Your task to perform on an android device: Go to eBay Image 0: 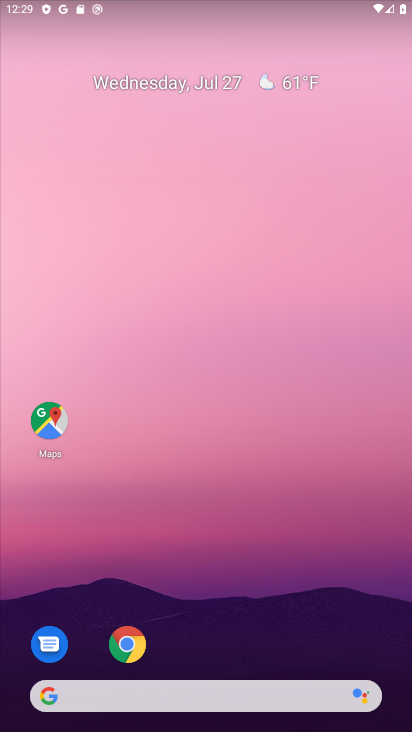
Step 0: drag from (205, 641) to (271, 142)
Your task to perform on an android device: Go to eBay Image 1: 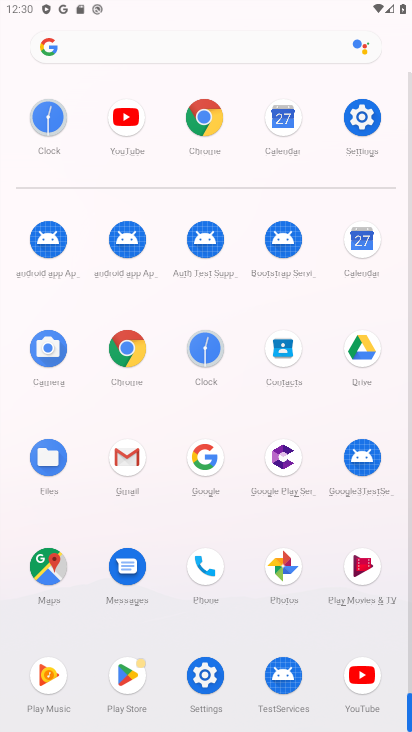
Step 1: drag from (231, 651) to (272, 278)
Your task to perform on an android device: Go to eBay Image 2: 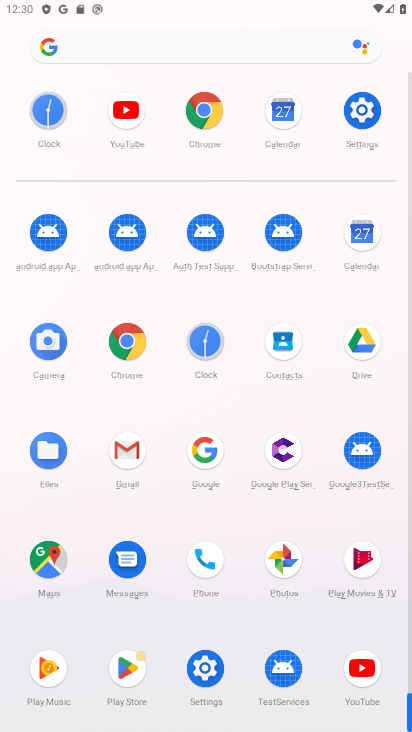
Step 2: click (212, 48)
Your task to perform on an android device: Go to eBay Image 3: 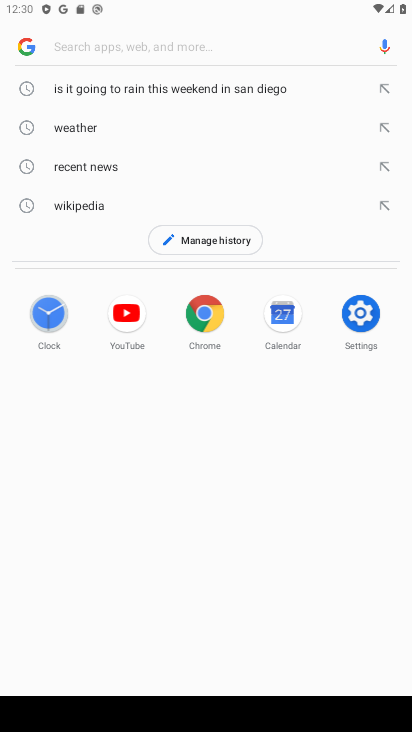
Step 3: type "ebay"
Your task to perform on an android device: Go to eBay Image 4: 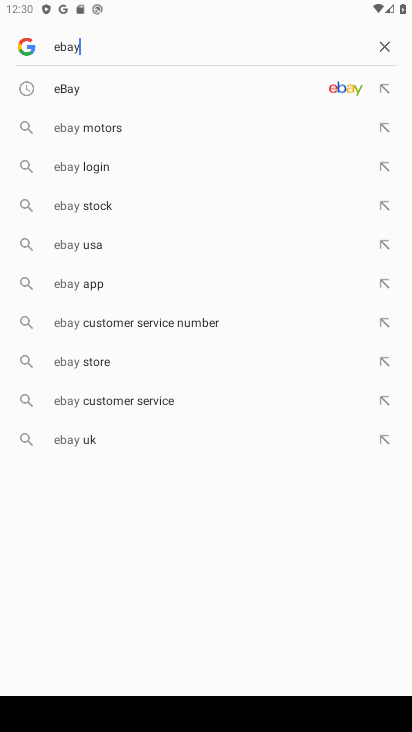
Step 4: click (179, 93)
Your task to perform on an android device: Go to eBay Image 5: 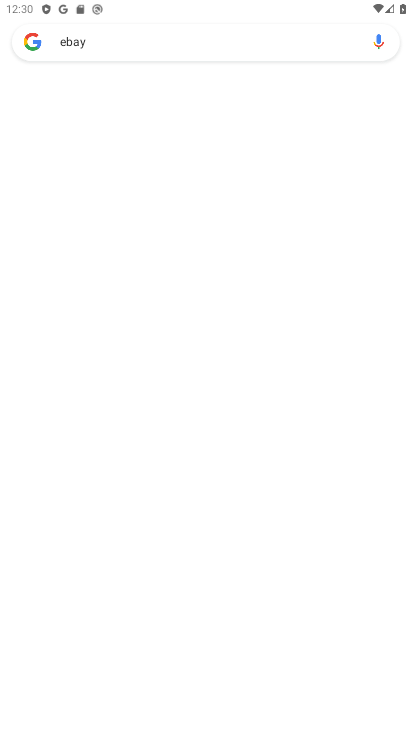
Step 5: drag from (143, 498) to (261, 97)
Your task to perform on an android device: Go to eBay Image 6: 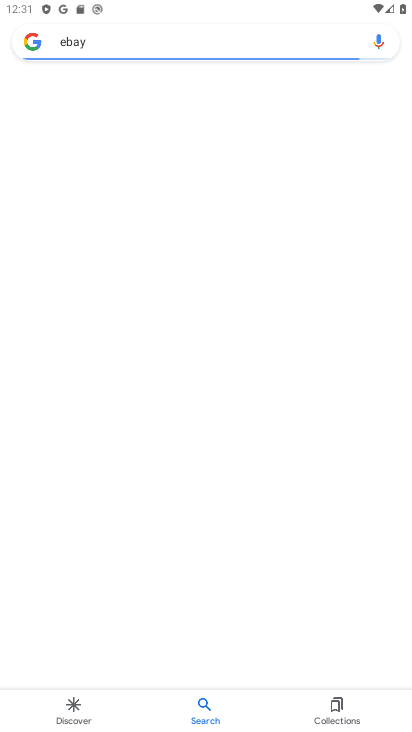
Step 6: drag from (128, 244) to (112, 632)
Your task to perform on an android device: Go to eBay Image 7: 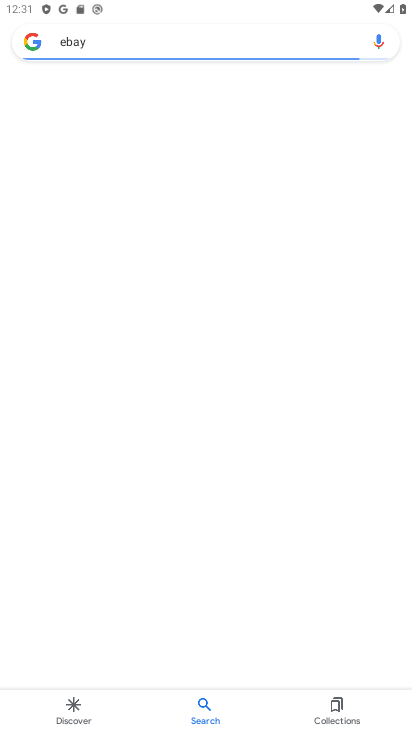
Step 7: click (263, 640)
Your task to perform on an android device: Go to eBay Image 8: 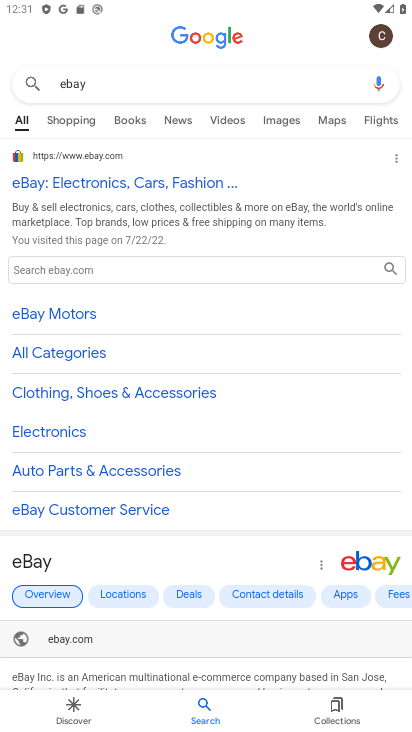
Step 8: click (142, 180)
Your task to perform on an android device: Go to eBay Image 9: 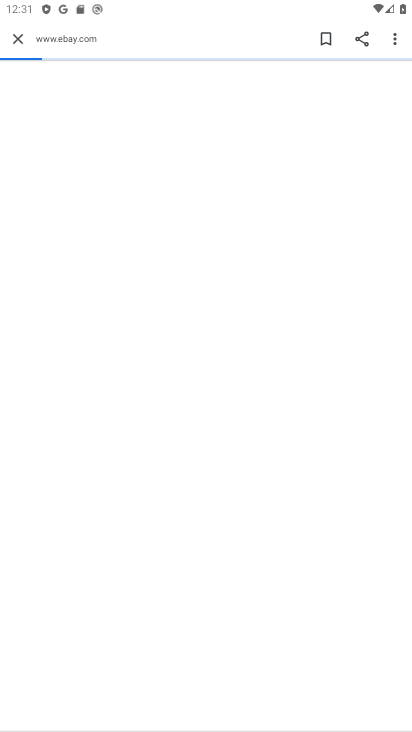
Step 9: task complete